Your task to perform on an android device: open a new tab in the chrome app Image 0: 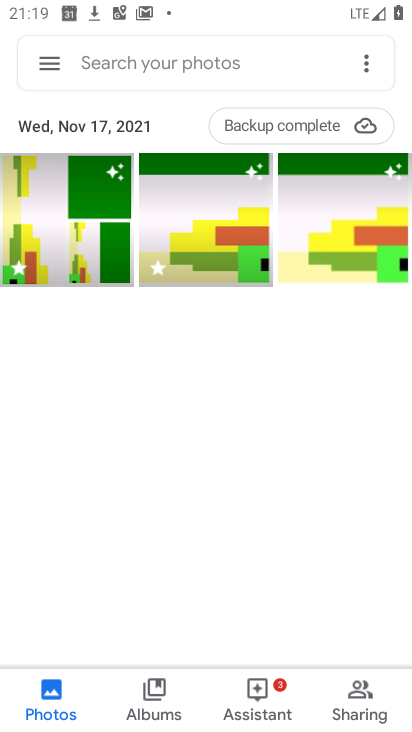
Step 0: press home button
Your task to perform on an android device: open a new tab in the chrome app Image 1: 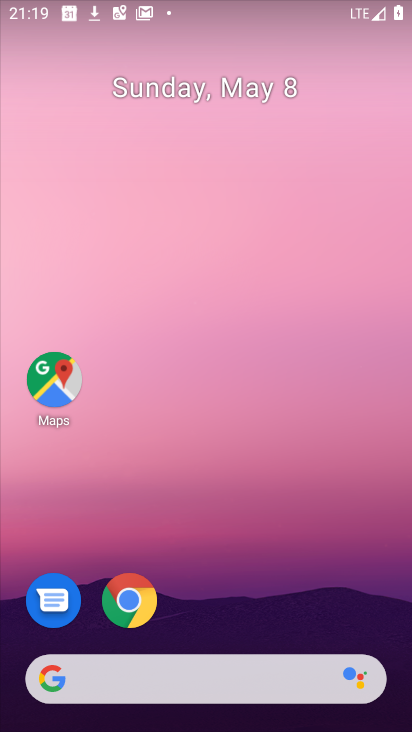
Step 1: drag from (289, 710) to (352, 122)
Your task to perform on an android device: open a new tab in the chrome app Image 2: 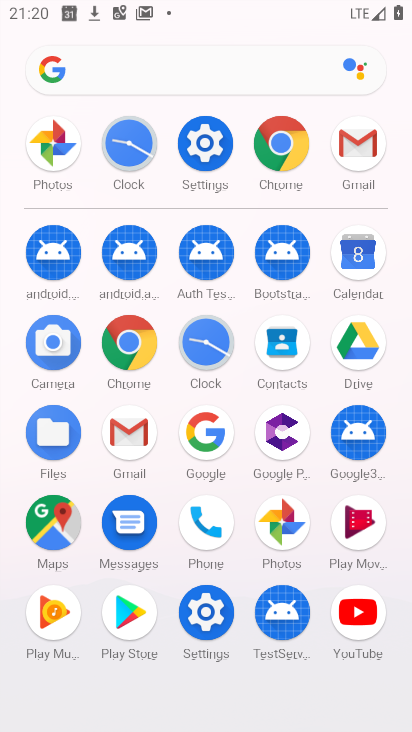
Step 2: click (273, 173)
Your task to perform on an android device: open a new tab in the chrome app Image 3: 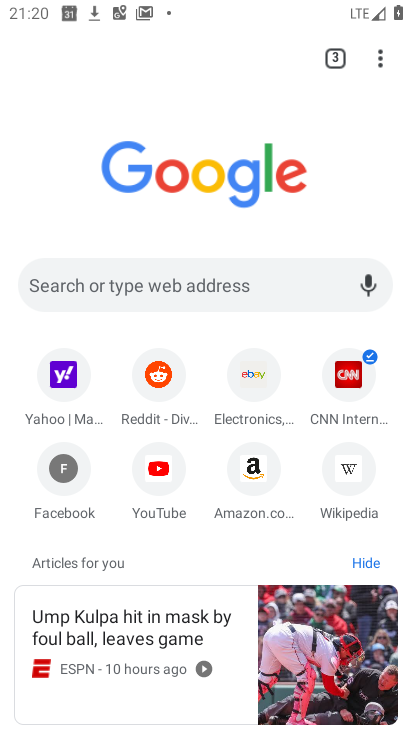
Step 3: click (382, 69)
Your task to perform on an android device: open a new tab in the chrome app Image 4: 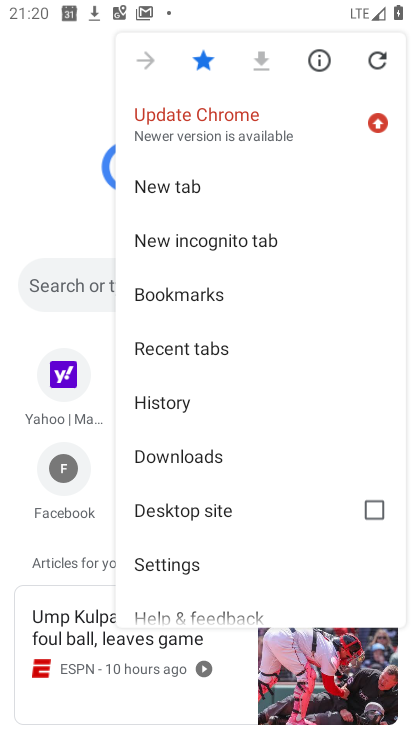
Step 4: click (186, 184)
Your task to perform on an android device: open a new tab in the chrome app Image 5: 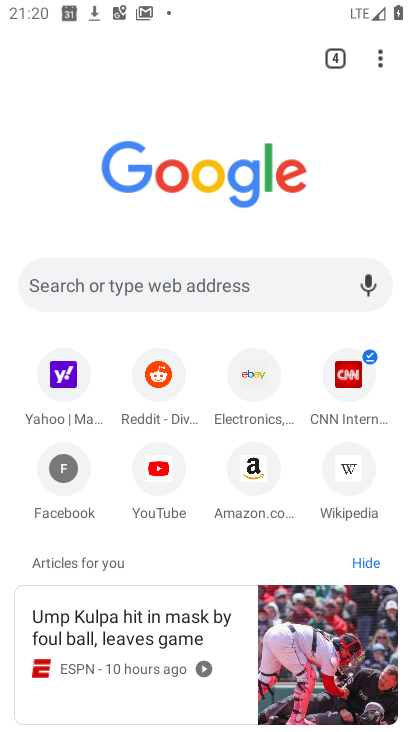
Step 5: task complete